Your task to perform on an android device: check battery use Image 0: 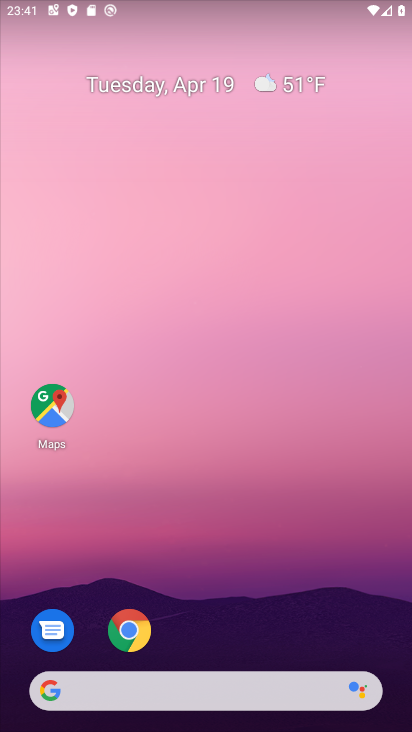
Step 0: drag from (335, 614) to (281, 192)
Your task to perform on an android device: check battery use Image 1: 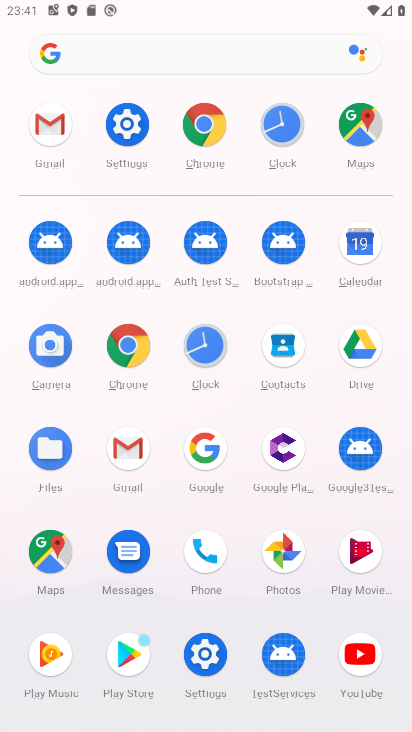
Step 1: click (137, 128)
Your task to perform on an android device: check battery use Image 2: 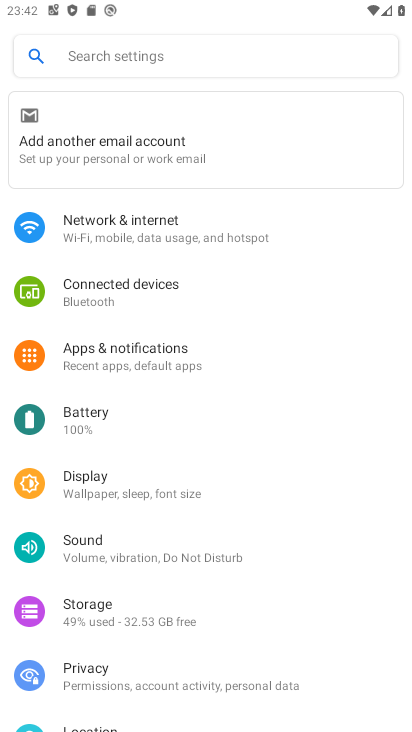
Step 2: click (165, 426)
Your task to perform on an android device: check battery use Image 3: 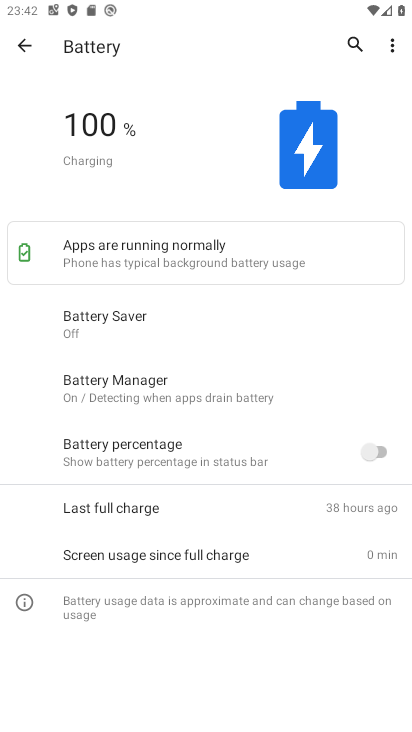
Step 3: click (394, 54)
Your task to perform on an android device: check battery use Image 4: 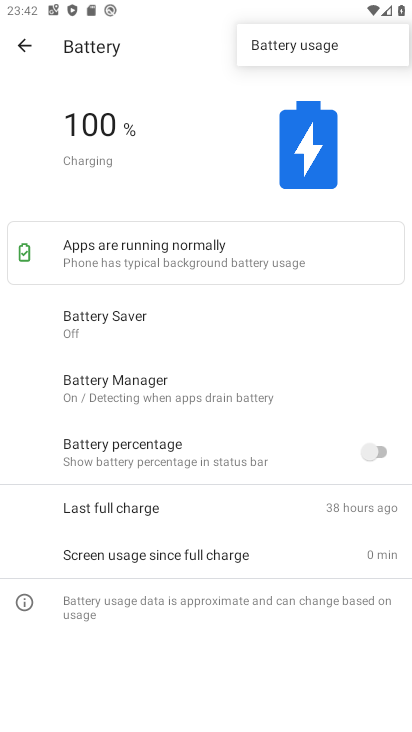
Step 4: click (322, 58)
Your task to perform on an android device: check battery use Image 5: 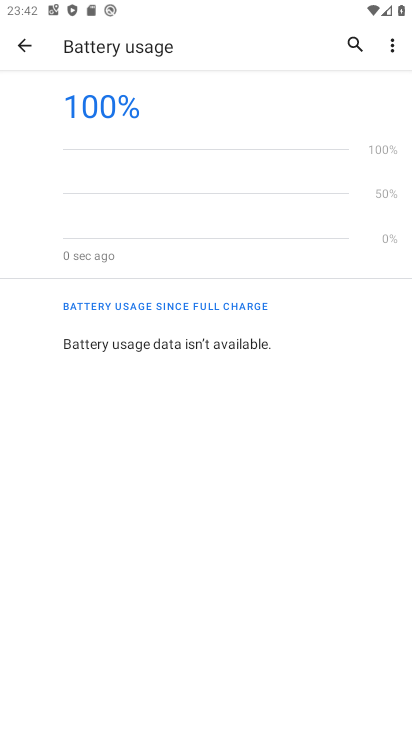
Step 5: task complete